Your task to perform on an android device: turn on translation in the chrome app Image 0: 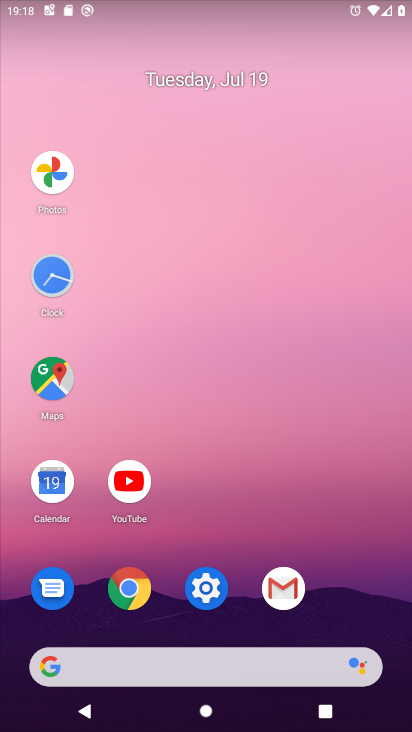
Step 0: click (133, 590)
Your task to perform on an android device: turn on translation in the chrome app Image 1: 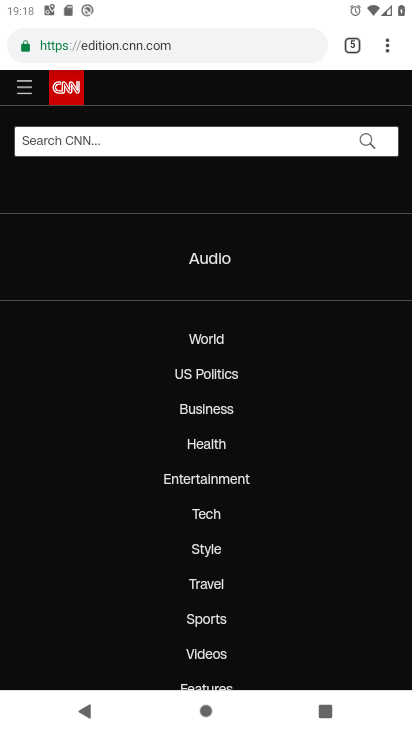
Step 1: click (391, 44)
Your task to perform on an android device: turn on translation in the chrome app Image 2: 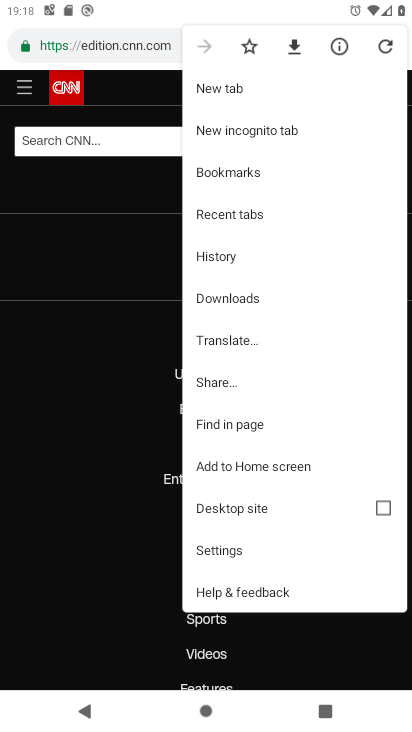
Step 2: click (217, 547)
Your task to perform on an android device: turn on translation in the chrome app Image 3: 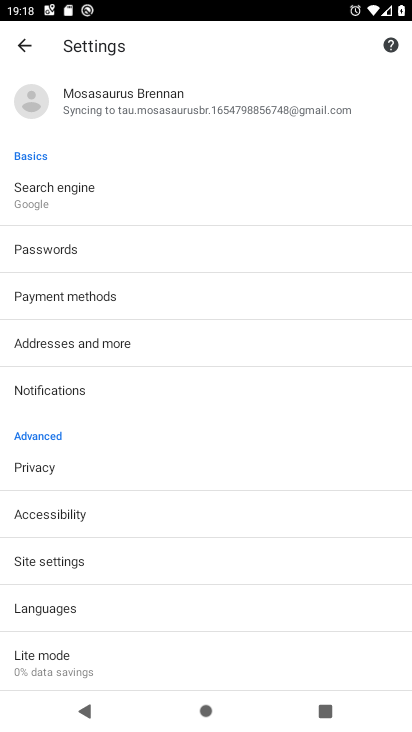
Step 3: click (62, 610)
Your task to perform on an android device: turn on translation in the chrome app Image 4: 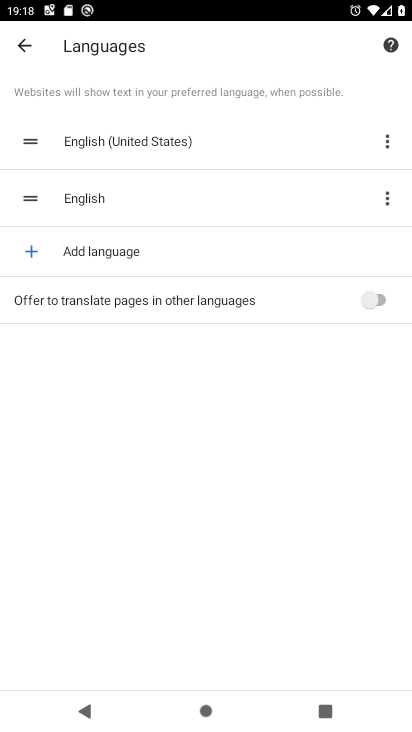
Step 4: click (365, 295)
Your task to perform on an android device: turn on translation in the chrome app Image 5: 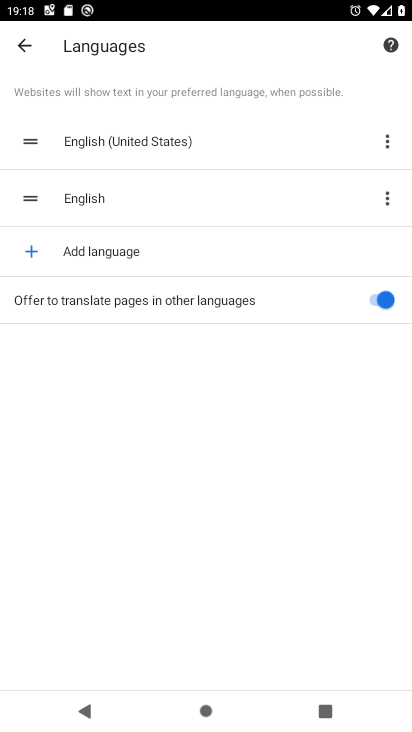
Step 5: task complete